Your task to perform on an android device: Search for vegetarian restaurants on Maps Image 0: 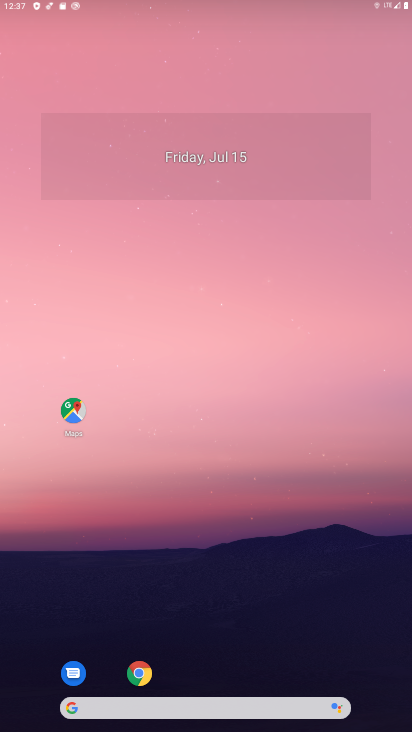
Step 0: click (398, 55)
Your task to perform on an android device: Search for vegetarian restaurants on Maps Image 1: 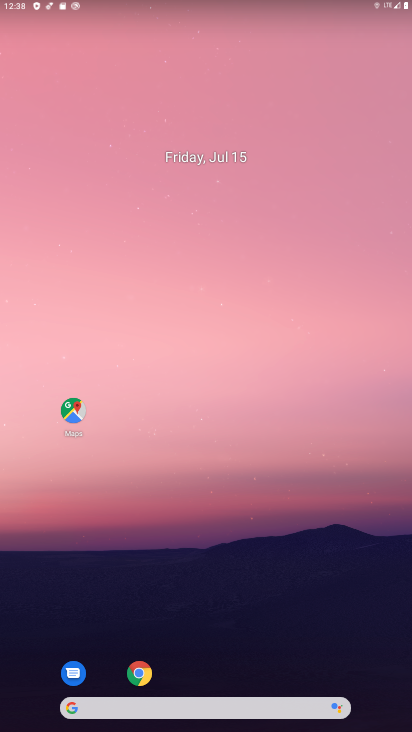
Step 1: click (75, 408)
Your task to perform on an android device: Search for vegetarian restaurants on Maps Image 2: 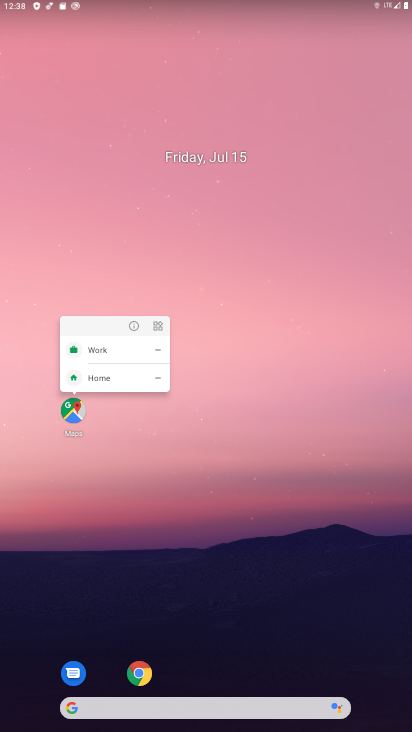
Step 2: click (78, 403)
Your task to perform on an android device: Search for vegetarian restaurants on Maps Image 3: 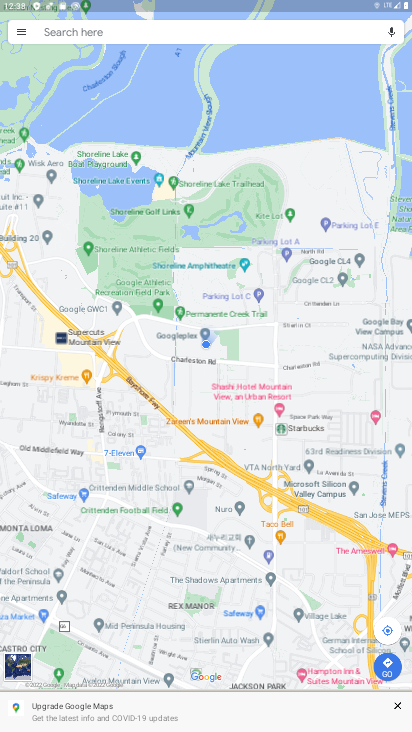
Step 3: click (224, 34)
Your task to perform on an android device: Search for vegetarian restaurants on Maps Image 4: 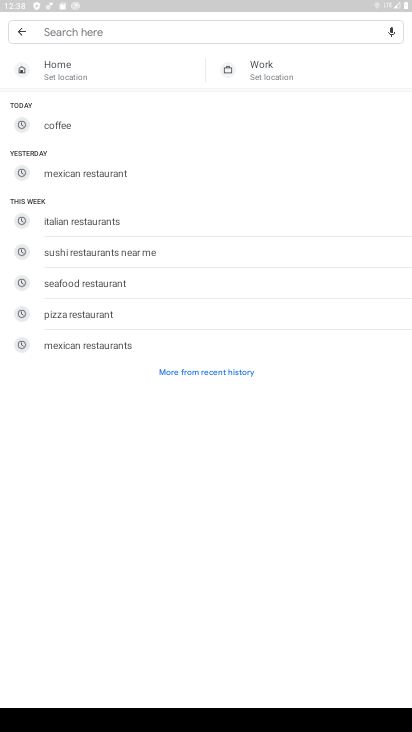
Step 4: type "vegetarian restaurants"
Your task to perform on an android device: Search for vegetarian restaurants on Maps Image 5: 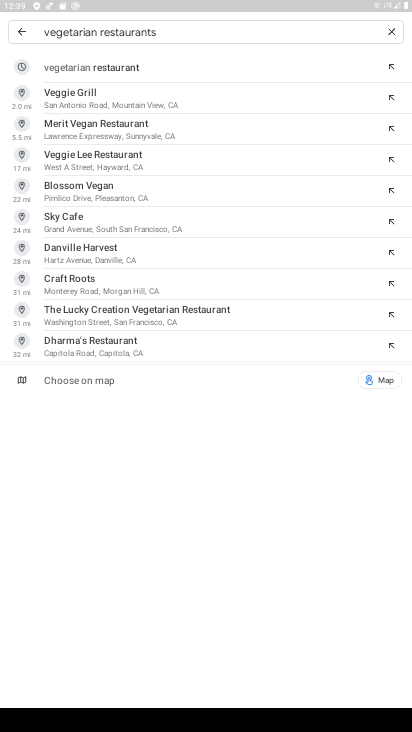
Step 5: click (90, 62)
Your task to perform on an android device: Search for vegetarian restaurants on Maps Image 6: 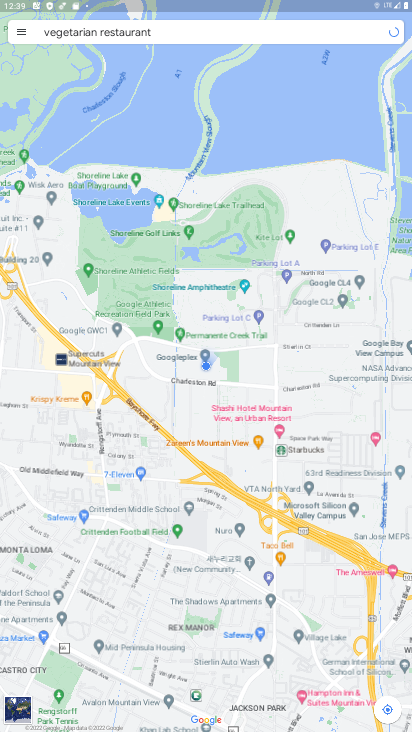
Step 6: task complete